Your task to perform on an android device: find photos in the google photos app Image 0: 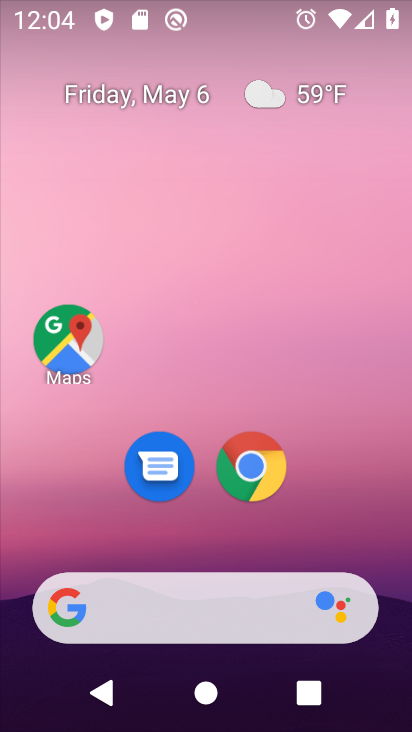
Step 0: drag from (149, 555) to (249, 160)
Your task to perform on an android device: find photos in the google photos app Image 1: 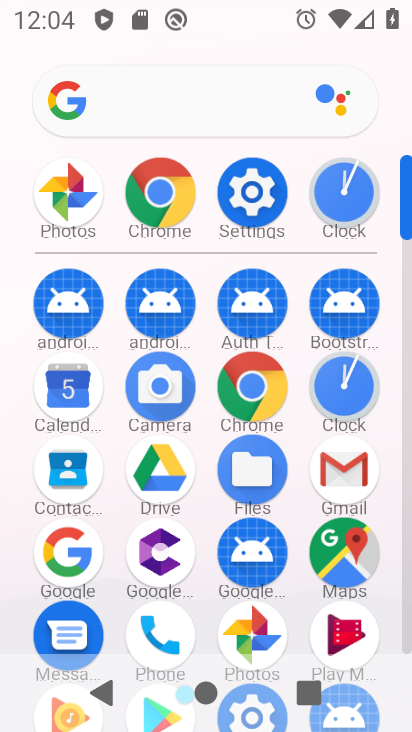
Step 1: click (253, 637)
Your task to perform on an android device: find photos in the google photos app Image 2: 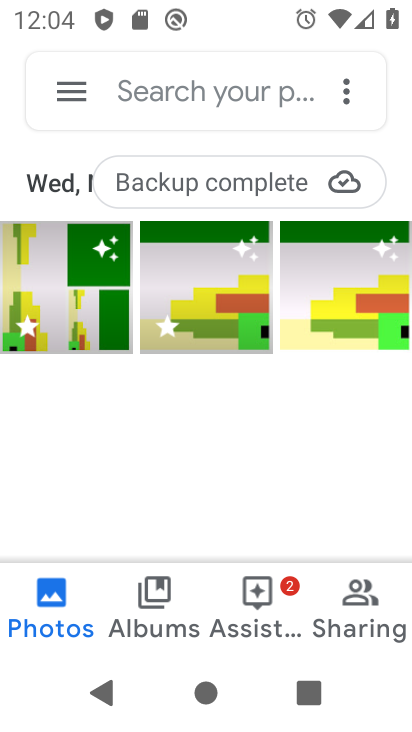
Step 2: task complete